Your task to perform on an android device: turn on the 12-hour format for clock Image 0: 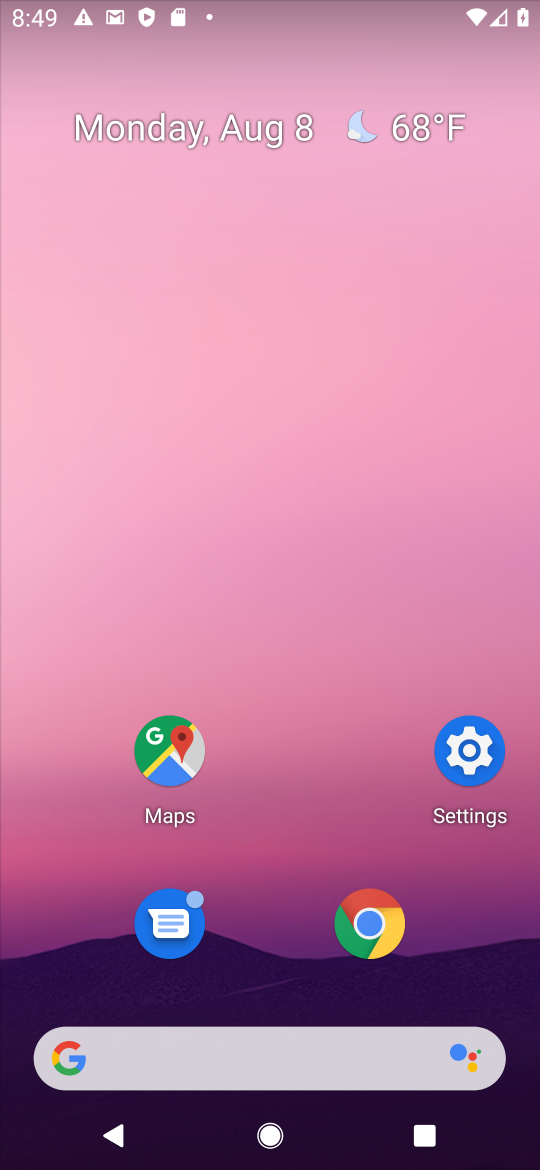
Step 0: press home button
Your task to perform on an android device: turn on the 12-hour format for clock Image 1: 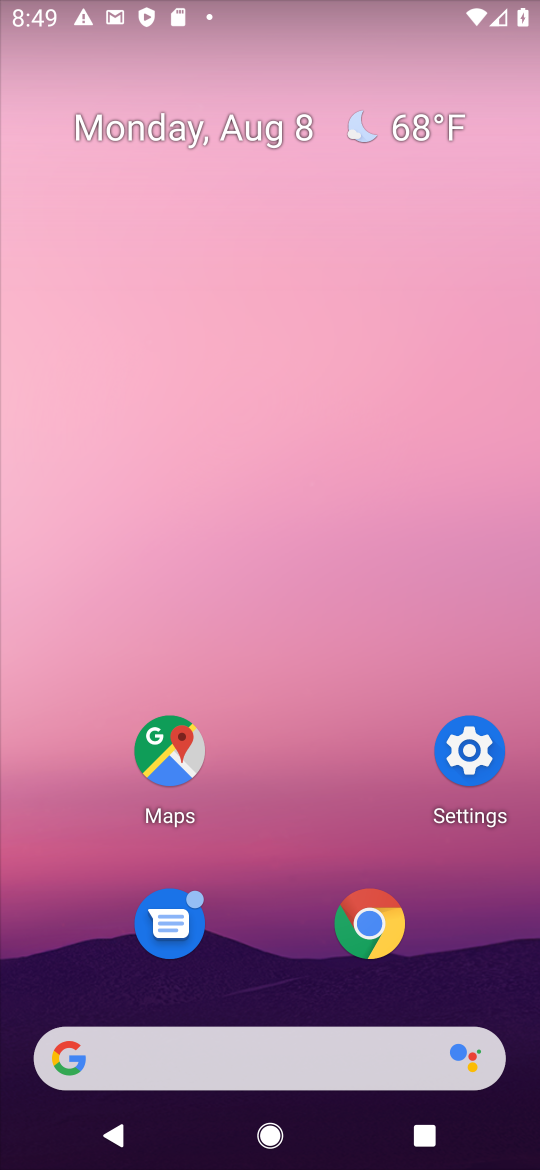
Step 1: drag from (384, 807) to (532, 777)
Your task to perform on an android device: turn on the 12-hour format for clock Image 2: 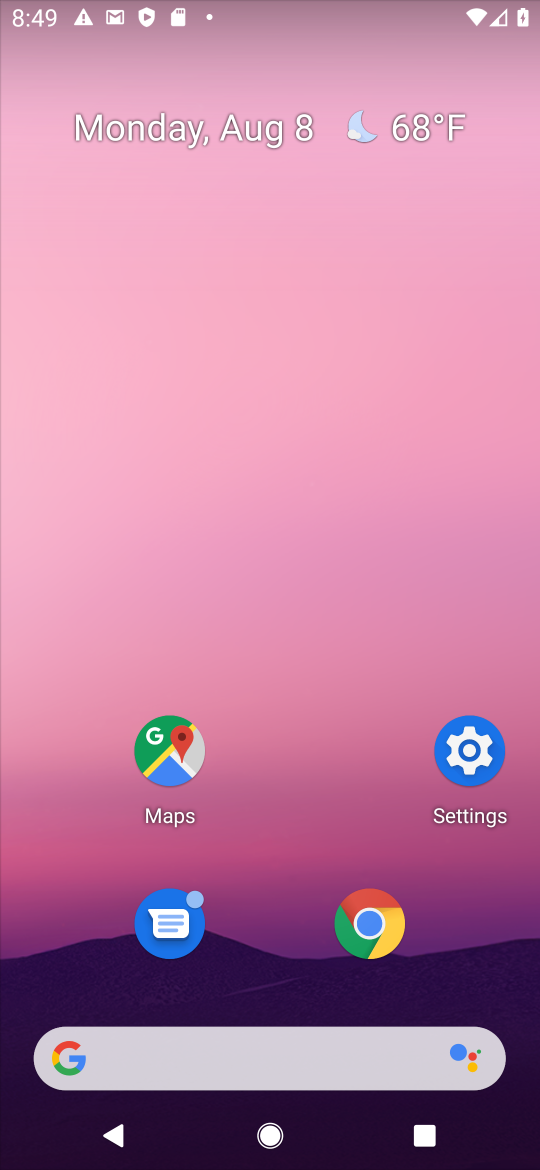
Step 2: drag from (265, 1050) to (500, 175)
Your task to perform on an android device: turn on the 12-hour format for clock Image 3: 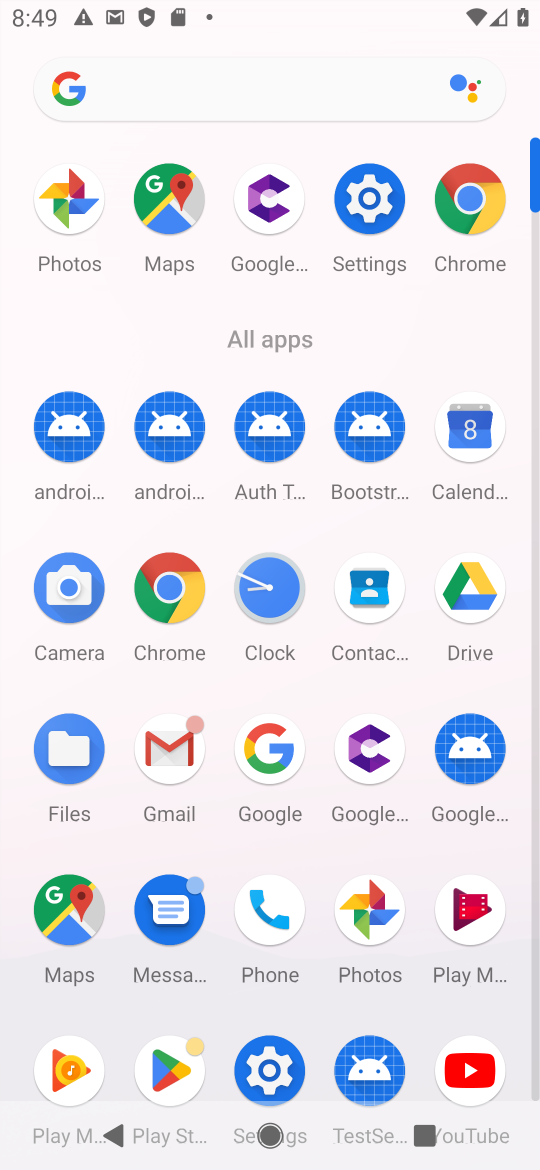
Step 3: click (273, 589)
Your task to perform on an android device: turn on the 12-hour format for clock Image 4: 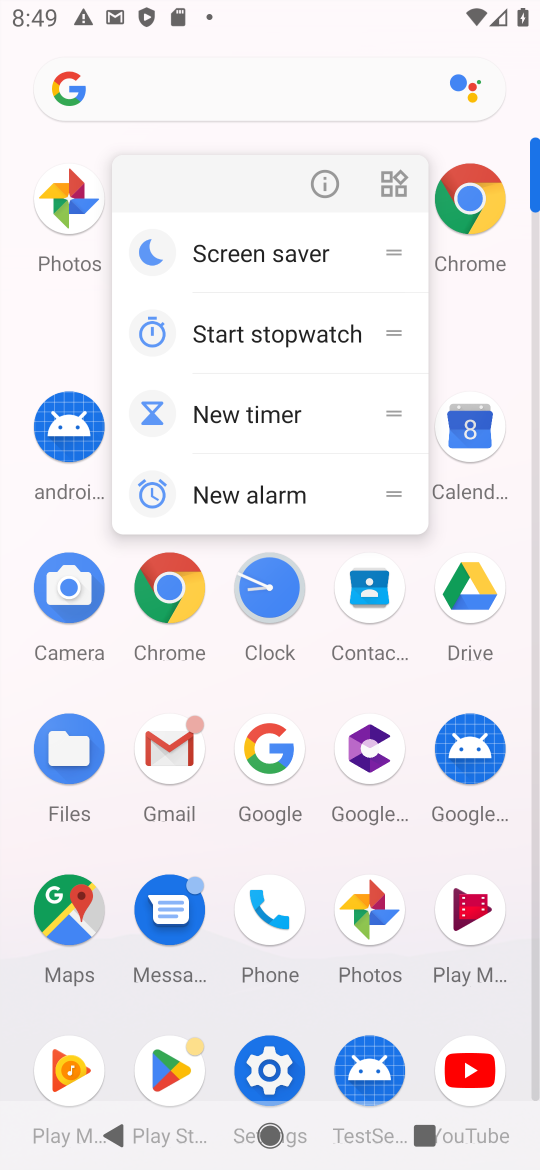
Step 4: click (272, 588)
Your task to perform on an android device: turn on the 12-hour format for clock Image 5: 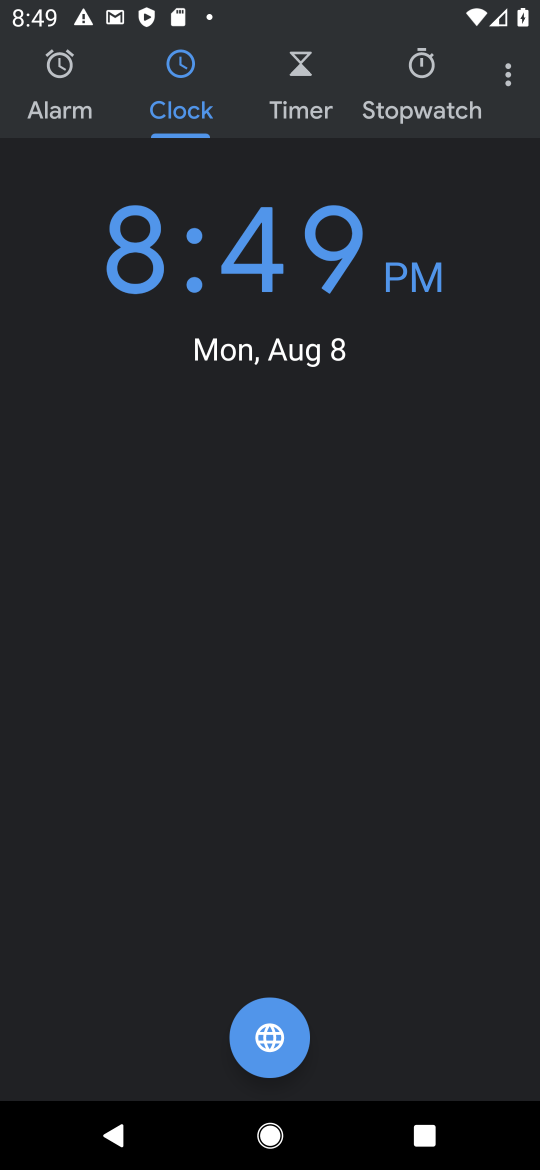
Step 5: click (508, 79)
Your task to perform on an android device: turn on the 12-hour format for clock Image 6: 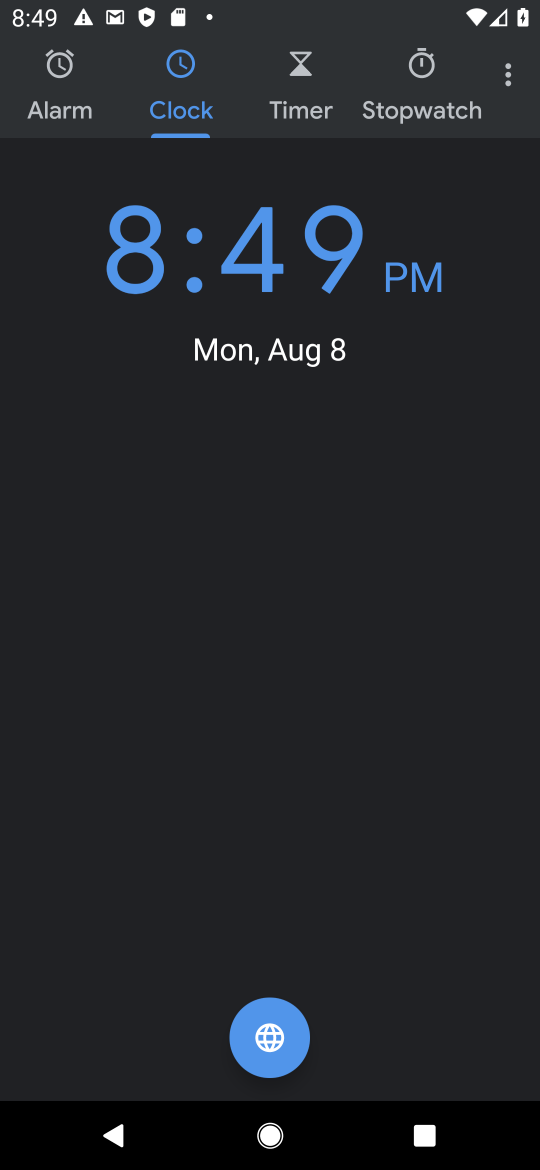
Step 6: click (508, 81)
Your task to perform on an android device: turn on the 12-hour format for clock Image 7: 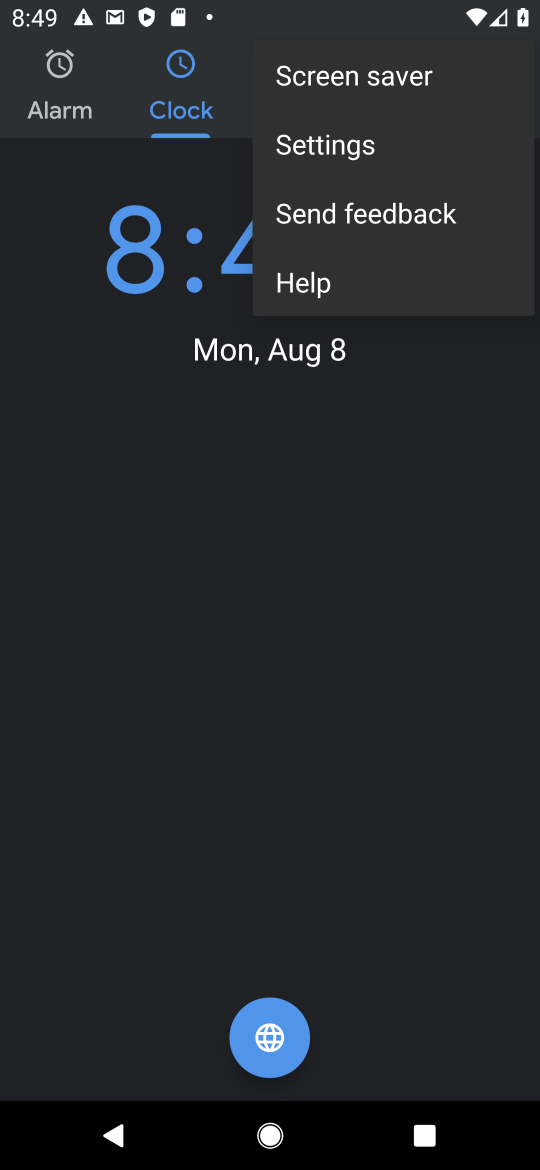
Step 7: click (378, 155)
Your task to perform on an android device: turn on the 12-hour format for clock Image 8: 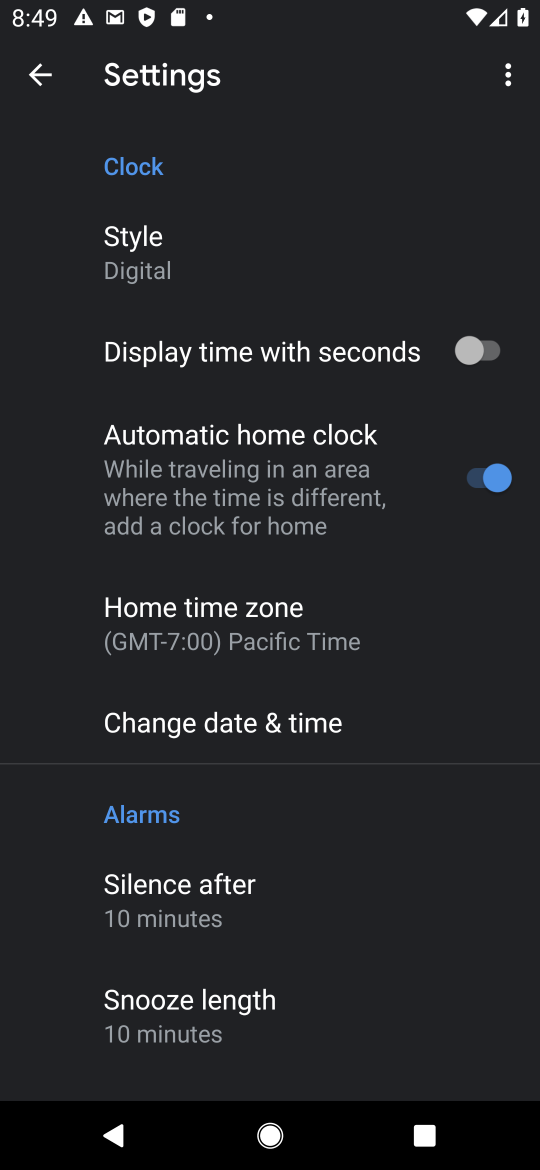
Step 8: click (262, 701)
Your task to perform on an android device: turn on the 12-hour format for clock Image 9: 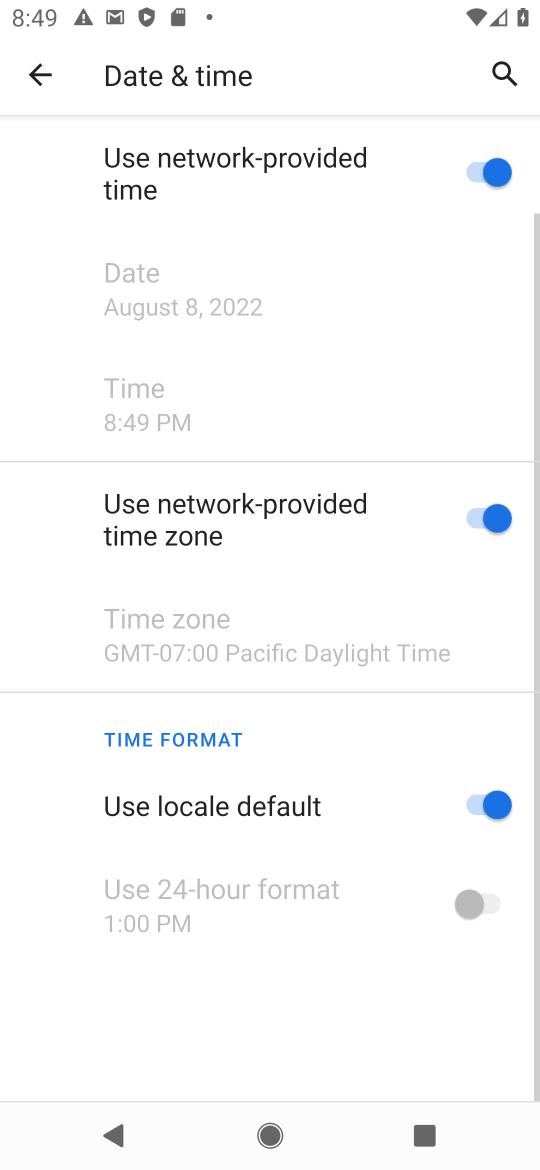
Step 9: task complete